Your task to perform on an android device: uninstall "Move to iOS" Image 0: 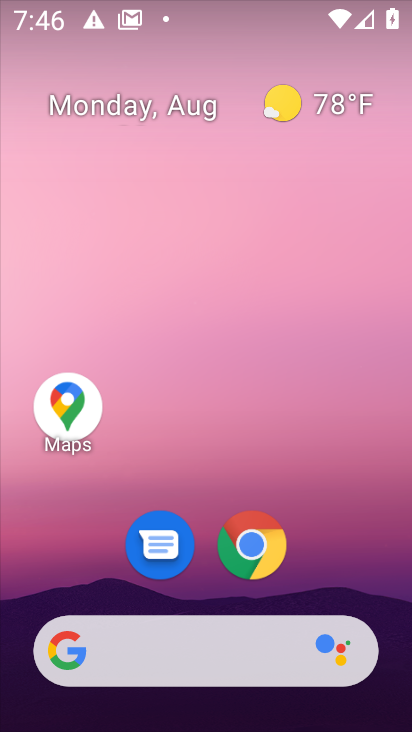
Step 0: press home button
Your task to perform on an android device: uninstall "Move to iOS" Image 1: 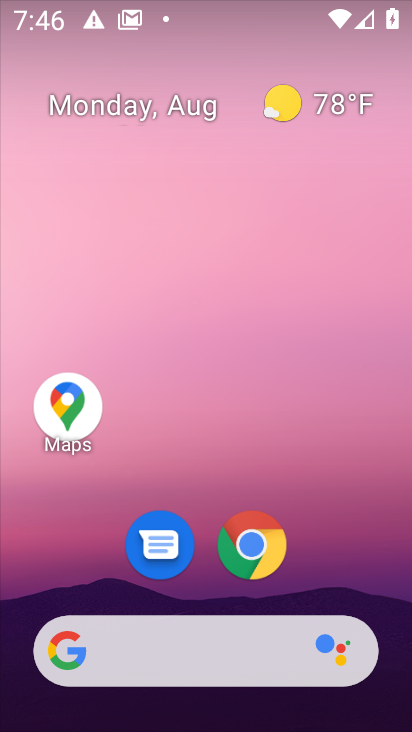
Step 1: drag from (361, 551) to (374, 129)
Your task to perform on an android device: uninstall "Move to iOS" Image 2: 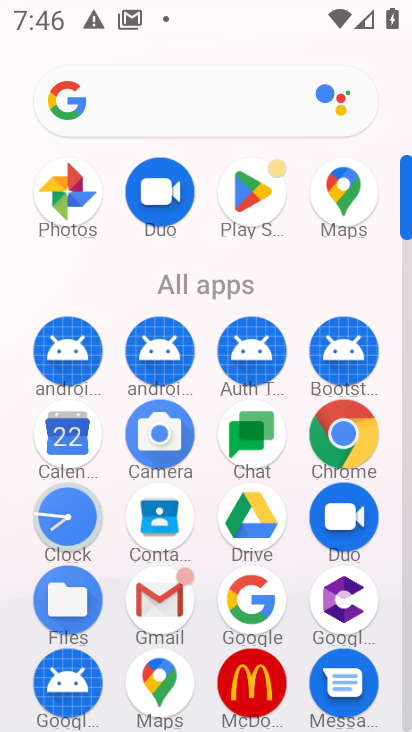
Step 2: click (259, 200)
Your task to perform on an android device: uninstall "Move to iOS" Image 3: 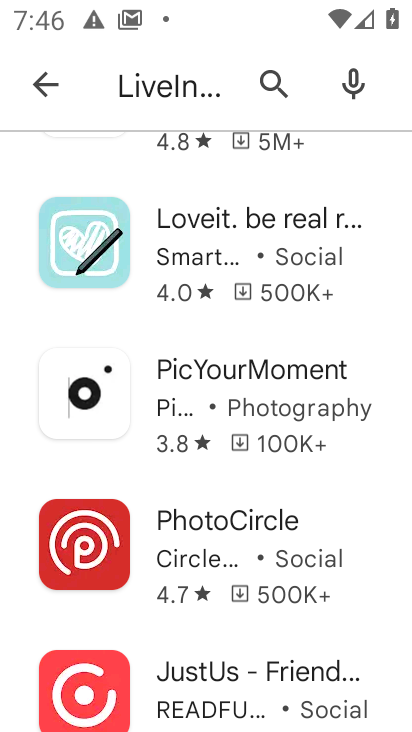
Step 3: press back button
Your task to perform on an android device: uninstall "Move to iOS" Image 4: 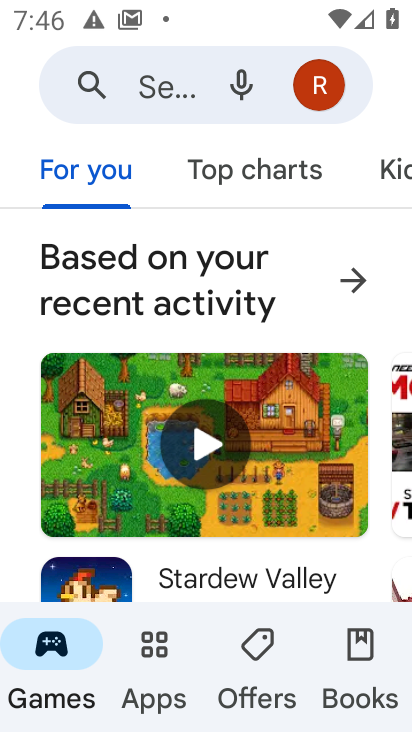
Step 4: click (163, 94)
Your task to perform on an android device: uninstall "Move to iOS" Image 5: 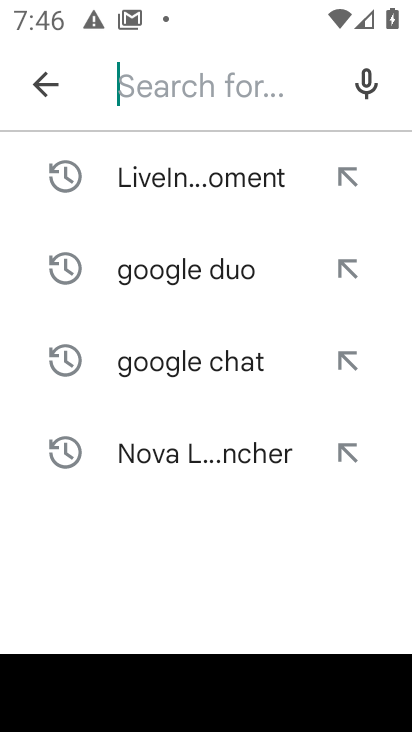
Step 5: type "move to ios"
Your task to perform on an android device: uninstall "Move to iOS" Image 6: 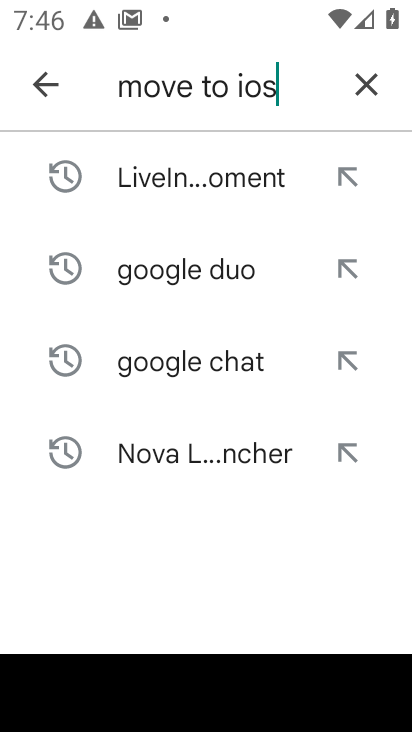
Step 6: press enter
Your task to perform on an android device: uninstall "Move to iOS" Image 7: 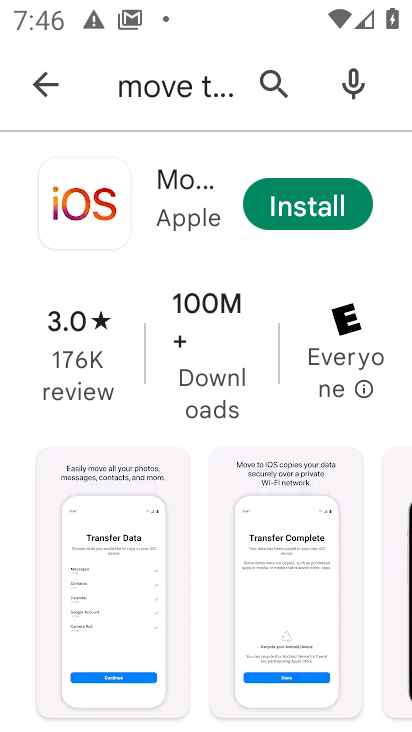
Step 7: task complete